Your task to perform on an android device: turn off improve location accuracy Image 0: 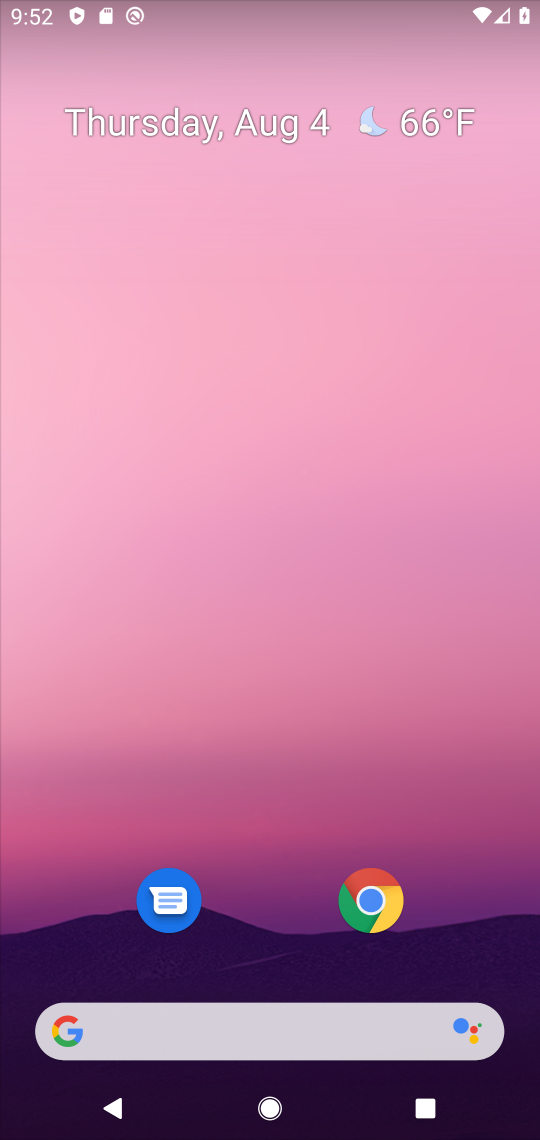
Step 0: drag from (513, 944) to (375, 253)
Your task to perform on an android device: turn off improve location accuracy Image 1: 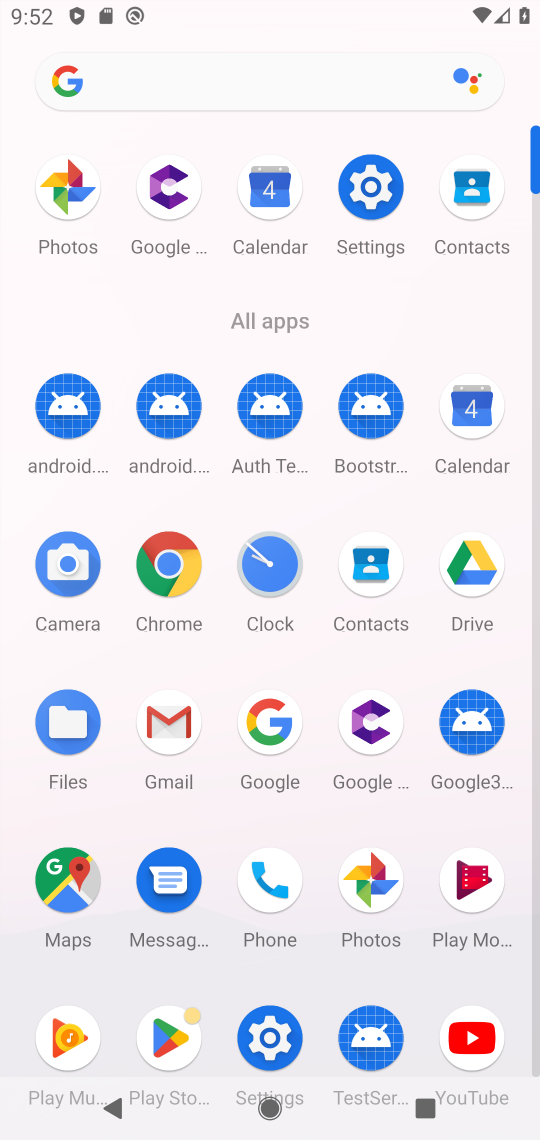
Step 1: click (374, 178)
Your task to perform on an android device: turn off improve location accuracy Image 2: 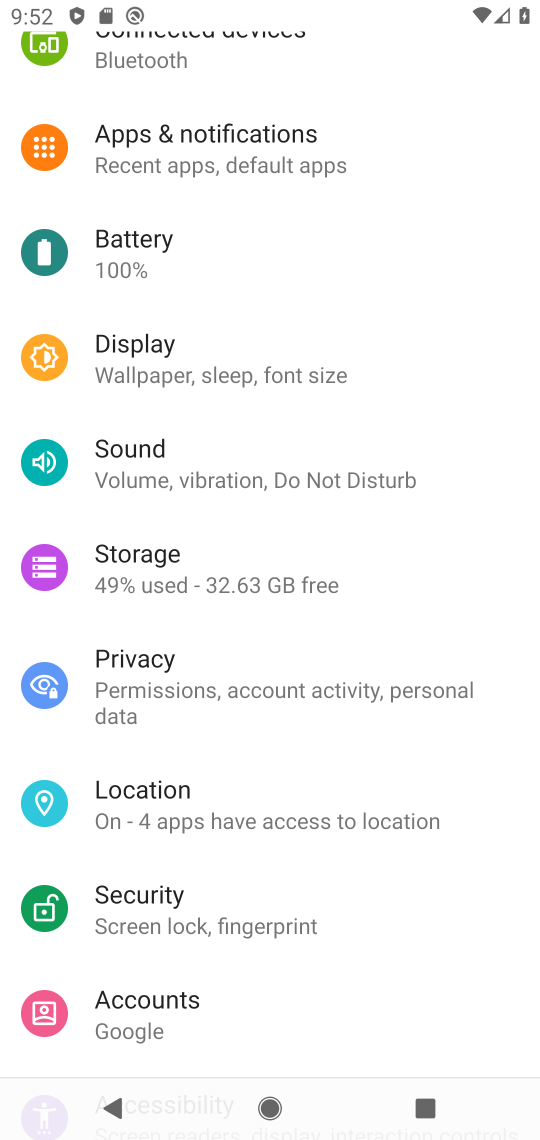
Step 2: click (139, 820)
Your task to perform on an android device: turn off improve location accuracy Image 3: 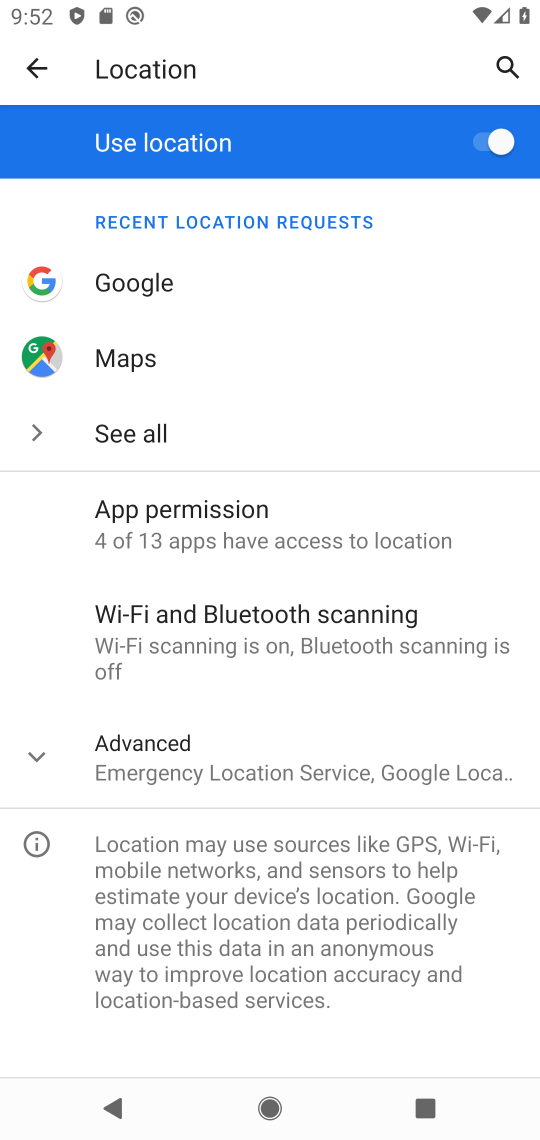
Step 3: click (361, 775)
Your task to perform on an android device: turn off improve location accuracy Image 4: 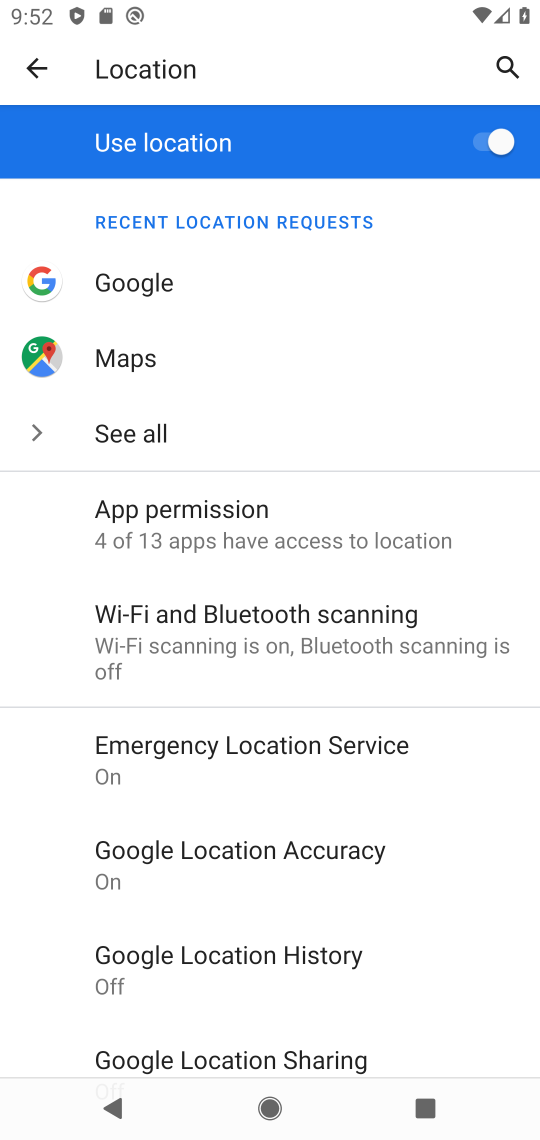
Step 4: click (382, 858)
Your task to perform on an android device: turn off improve location accuracy Image 5: 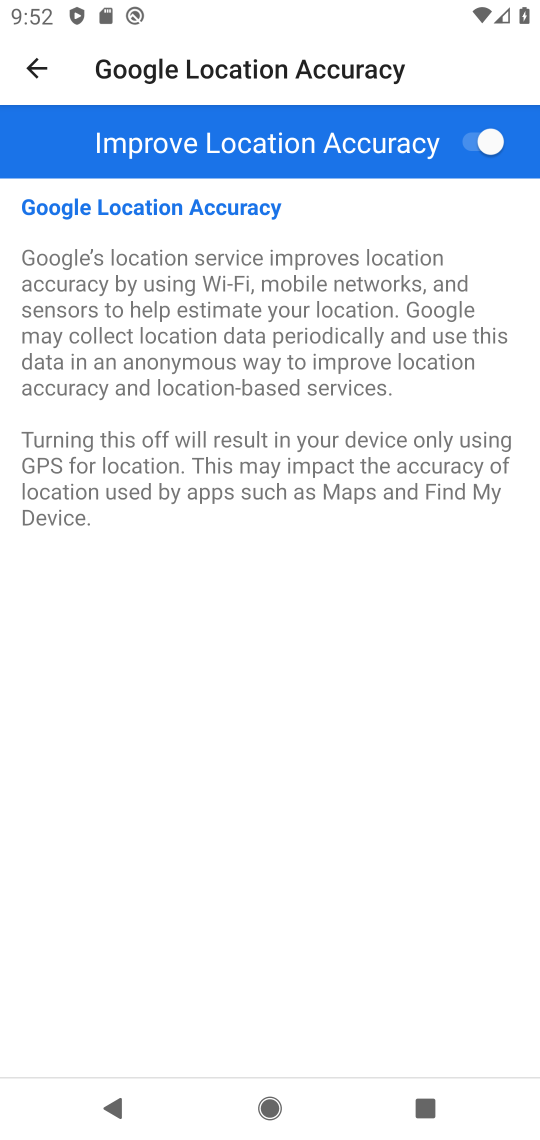
Step 5: click (473, 160)
Your task to perform on an android device: turn off improve location accuracy Image 6: 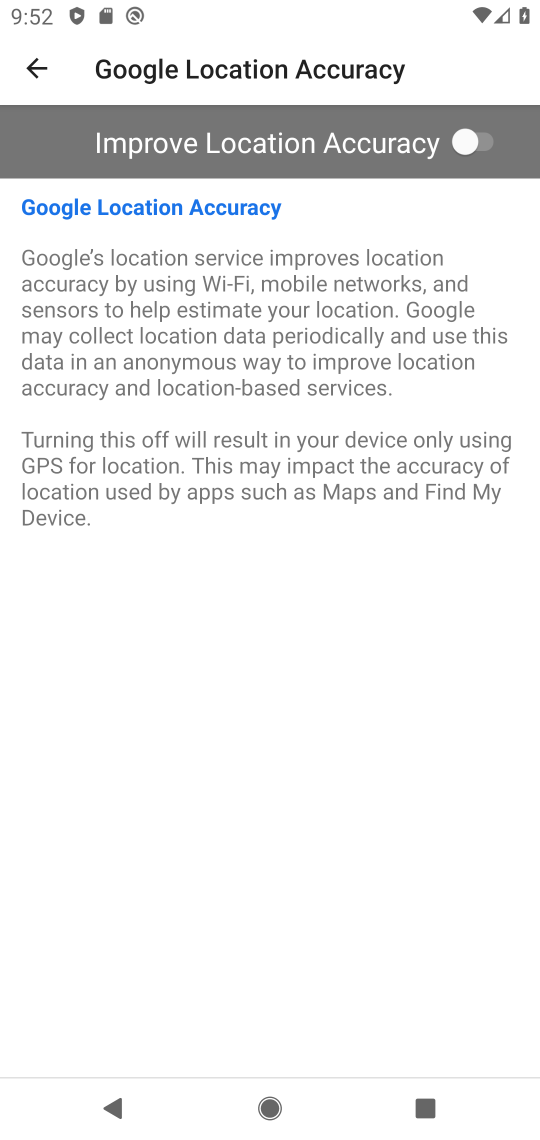
Step 6: task complete